Your task to perform on an android device: install app "DoorDash - Dasher" Image 0: 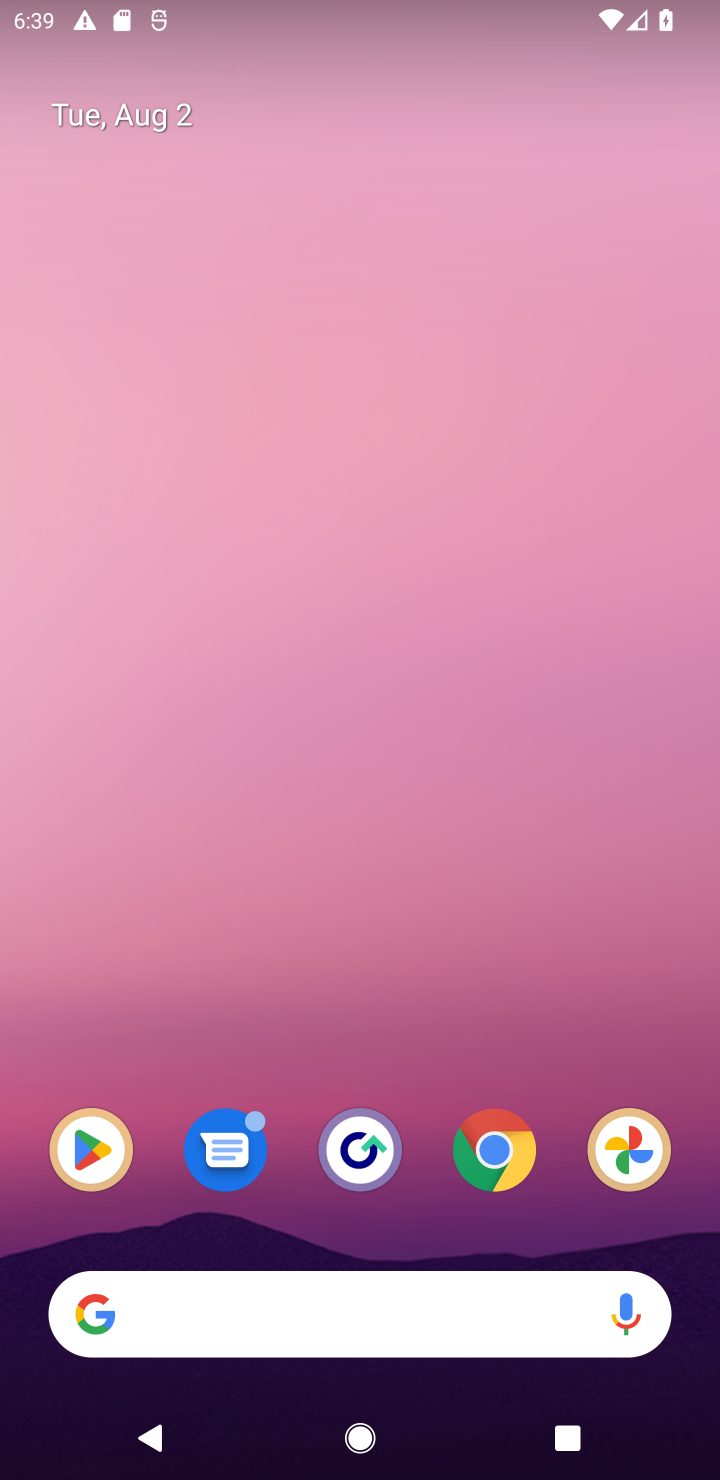
Step 0: drag from (307, 1280) to (373, 106)
Your task to perform on an android device: install app "DoorDash - Dasher" Image 1: 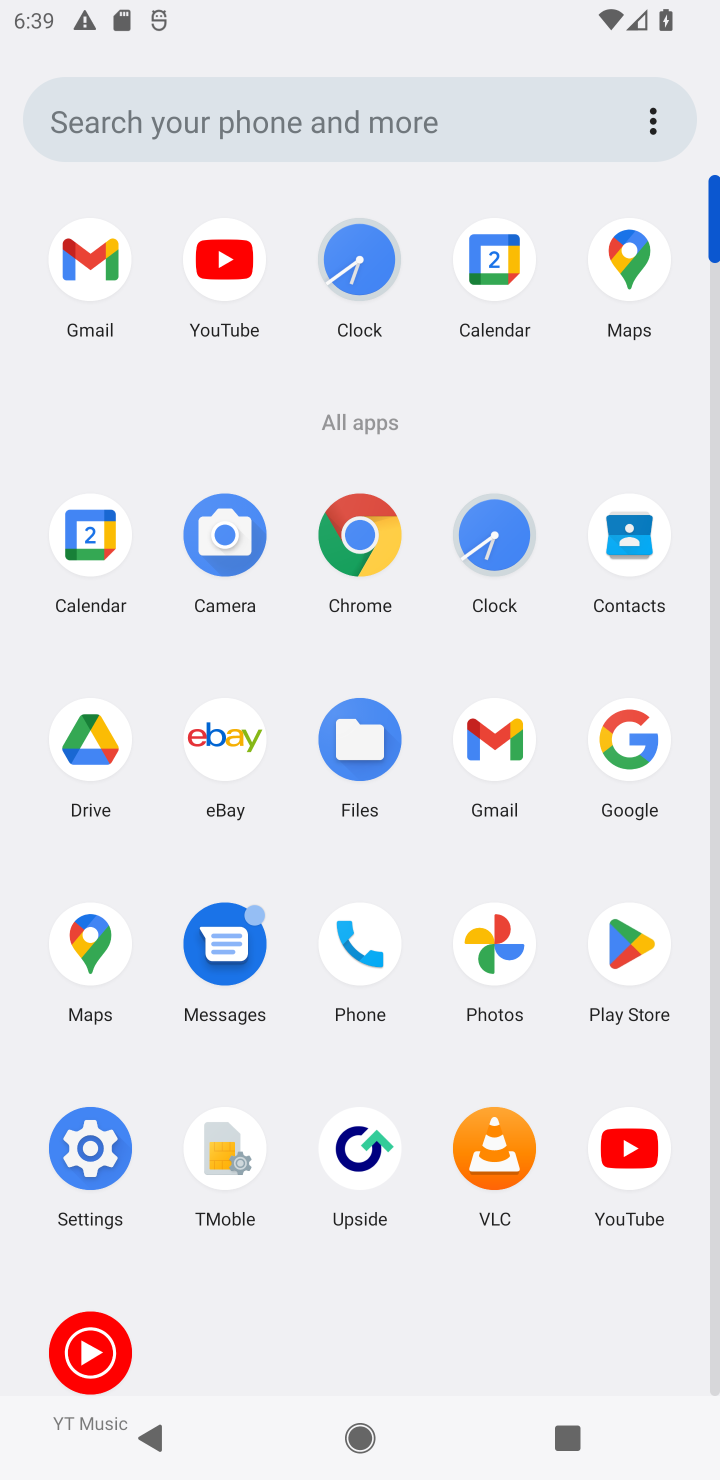
Step 1: click (617, 962)
Your task to perform on an android device: install app "DoorDash - Dasher" Image 2: 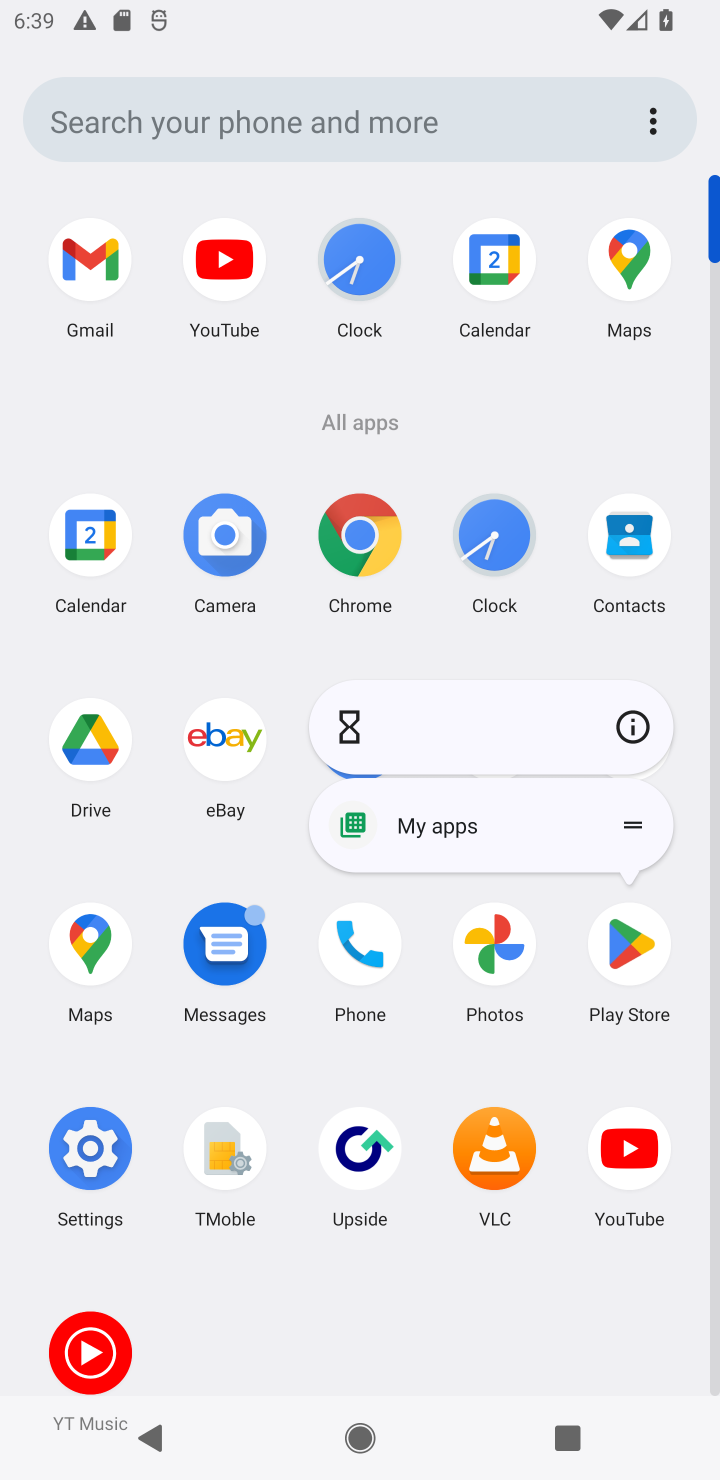
Step 2: click (594, 982)
Your task to perform on an android device: install app "DoorDash - Dasher" Image 3: 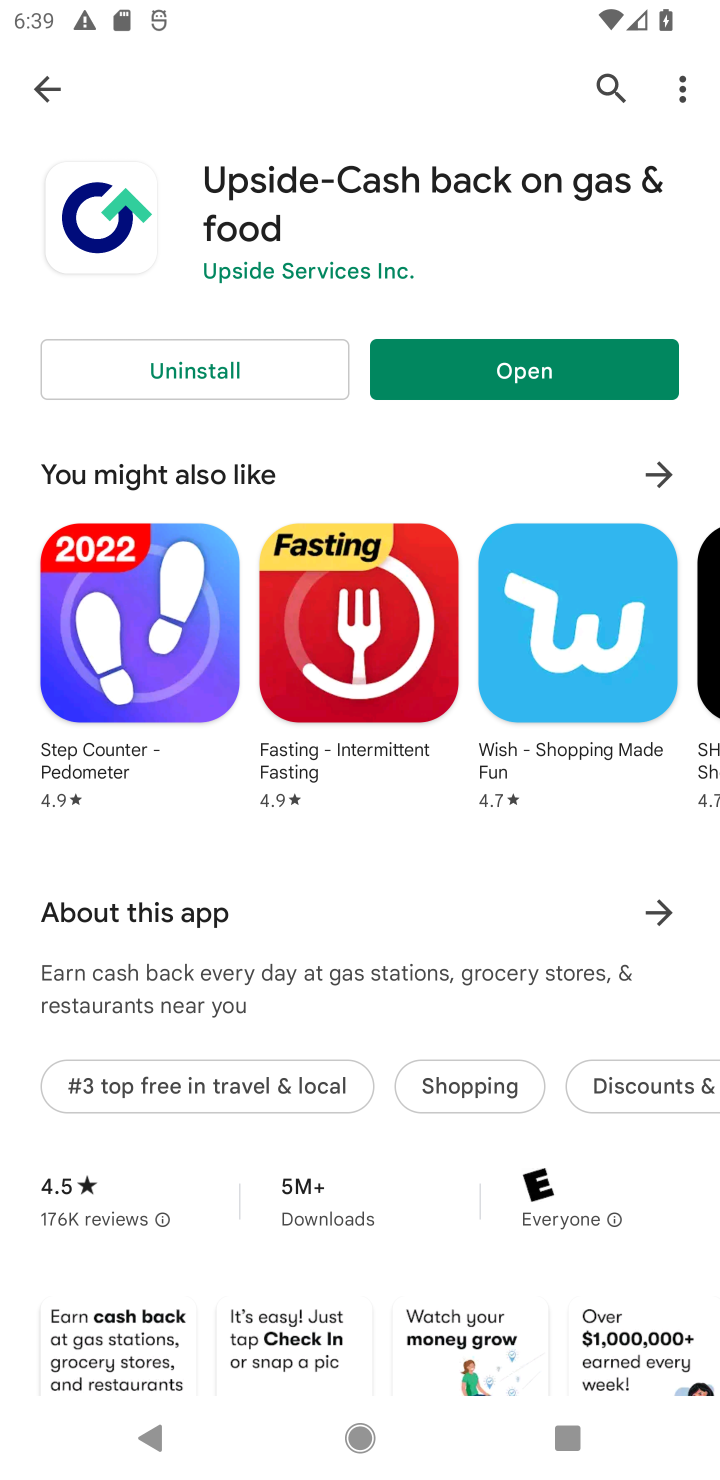
Step 3: click (17, 97)
Your task to perform on an android device: install app "DoorDash - Dasher" Image 4: 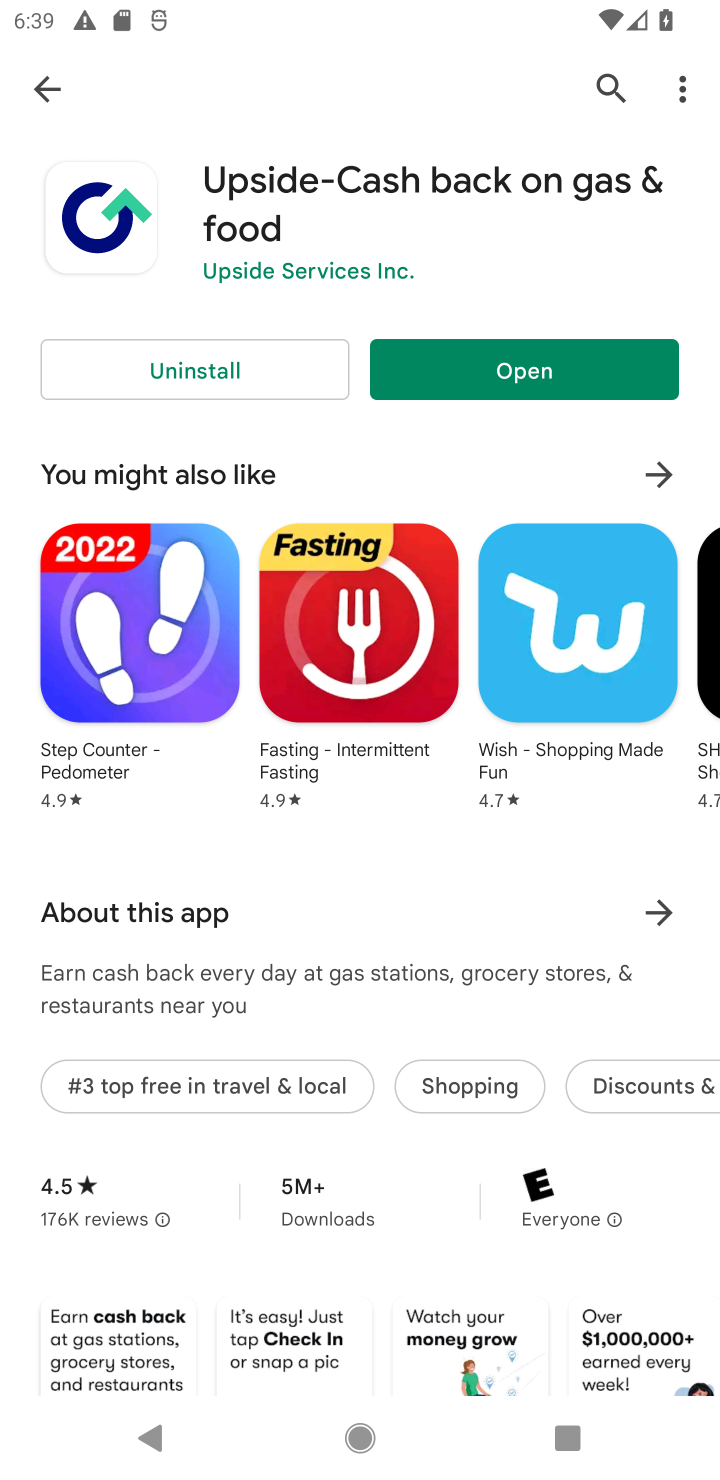
Step 4: click (27, 75)
Your task to perform on an android device: install app "DoorDash - Dasher" Image 5: 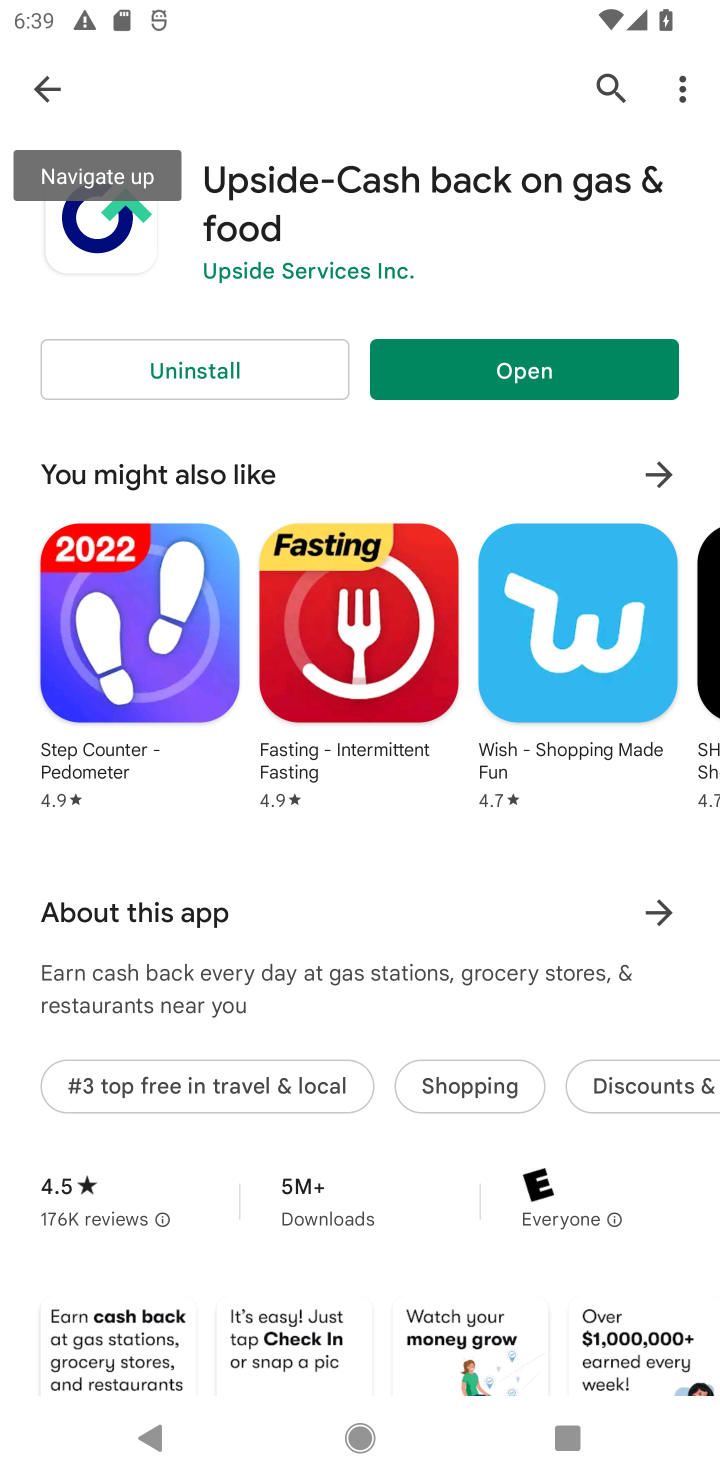
Step 5: click (29, 67)
Your task to perform on an android device: install app "DoorDash - Dasher" Image 6: 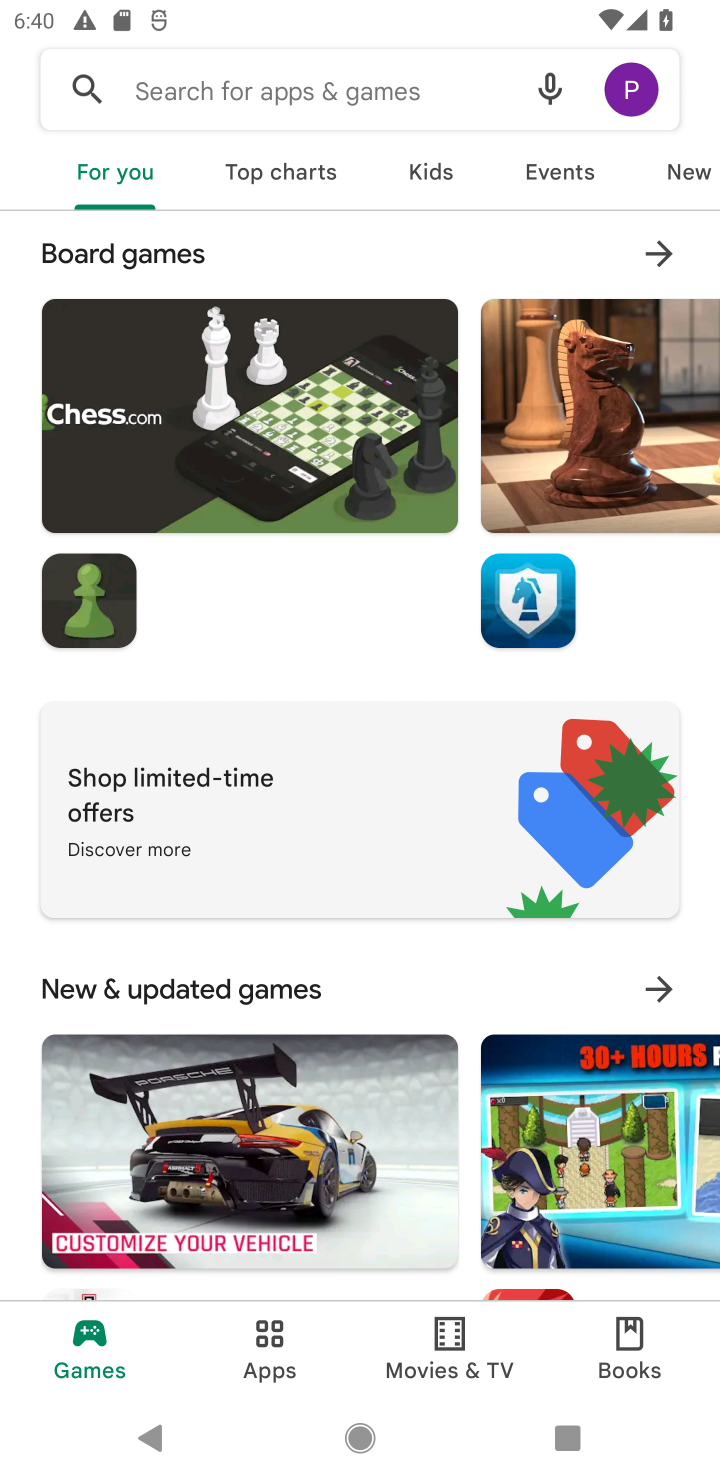
Step 6: click (329, 93)
Your task to perform on an android device: install app "DoorDash - Dasher" Image 7: 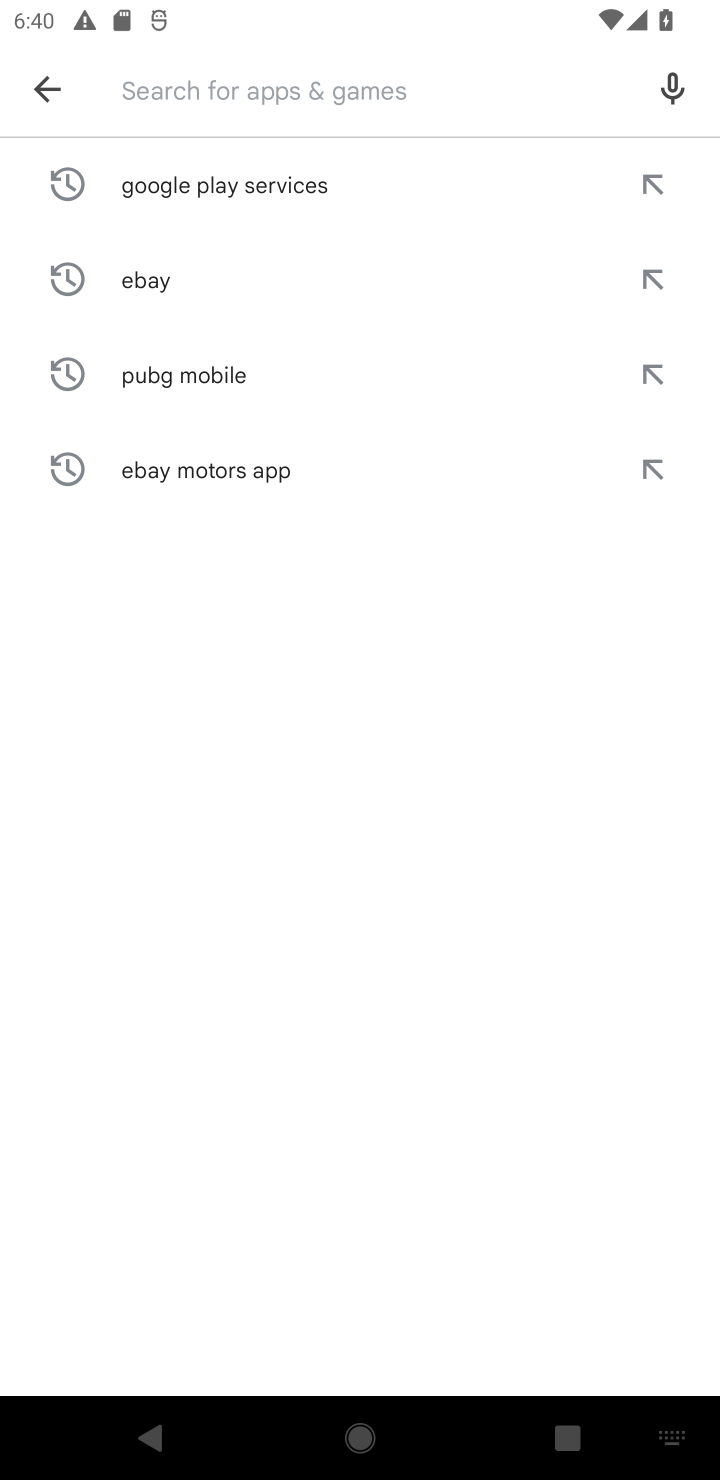
Step 7: type "DoorDash - Dashe"
Your task to perform on an android device: install app "DoorDash - Dasher" Image 8: 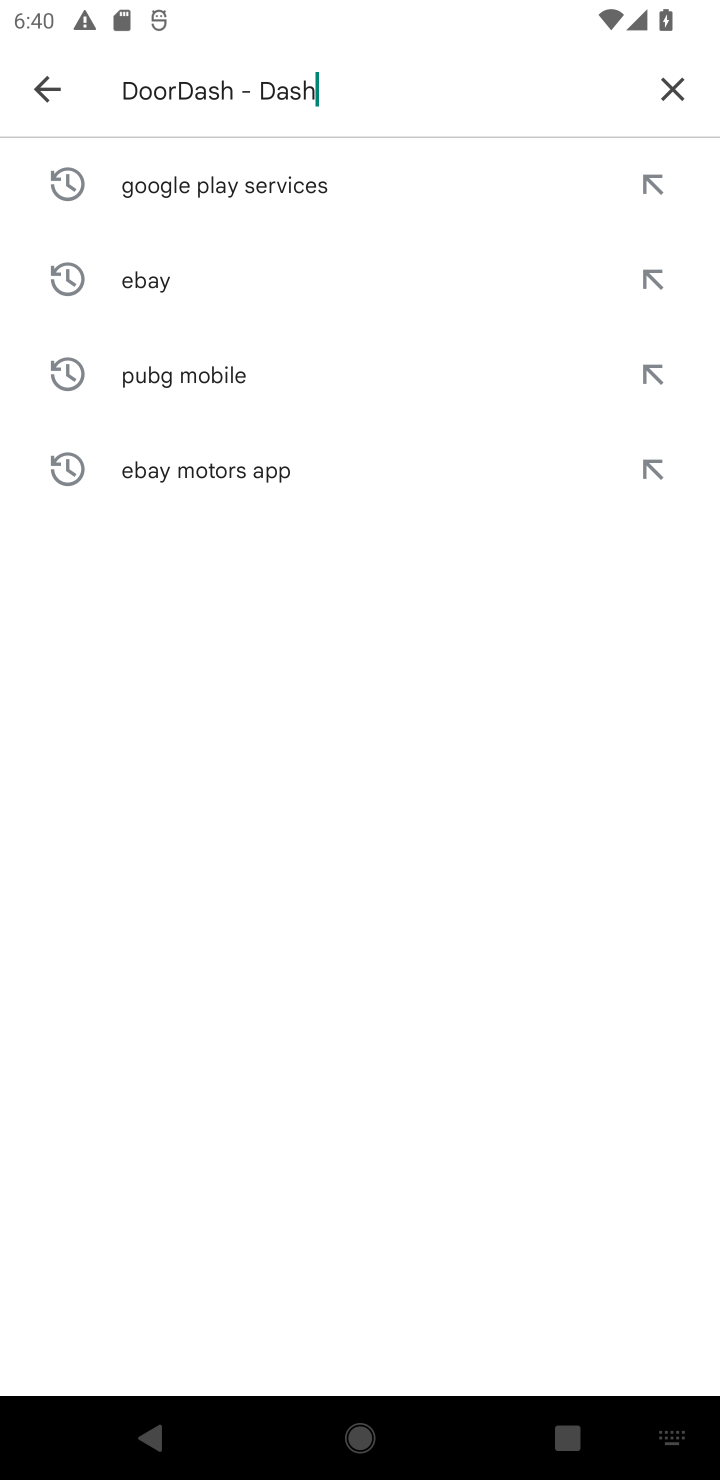
Step 8: type ""
Your task to perform on an android device: install app "DoorDash - Dasher" Image 9: 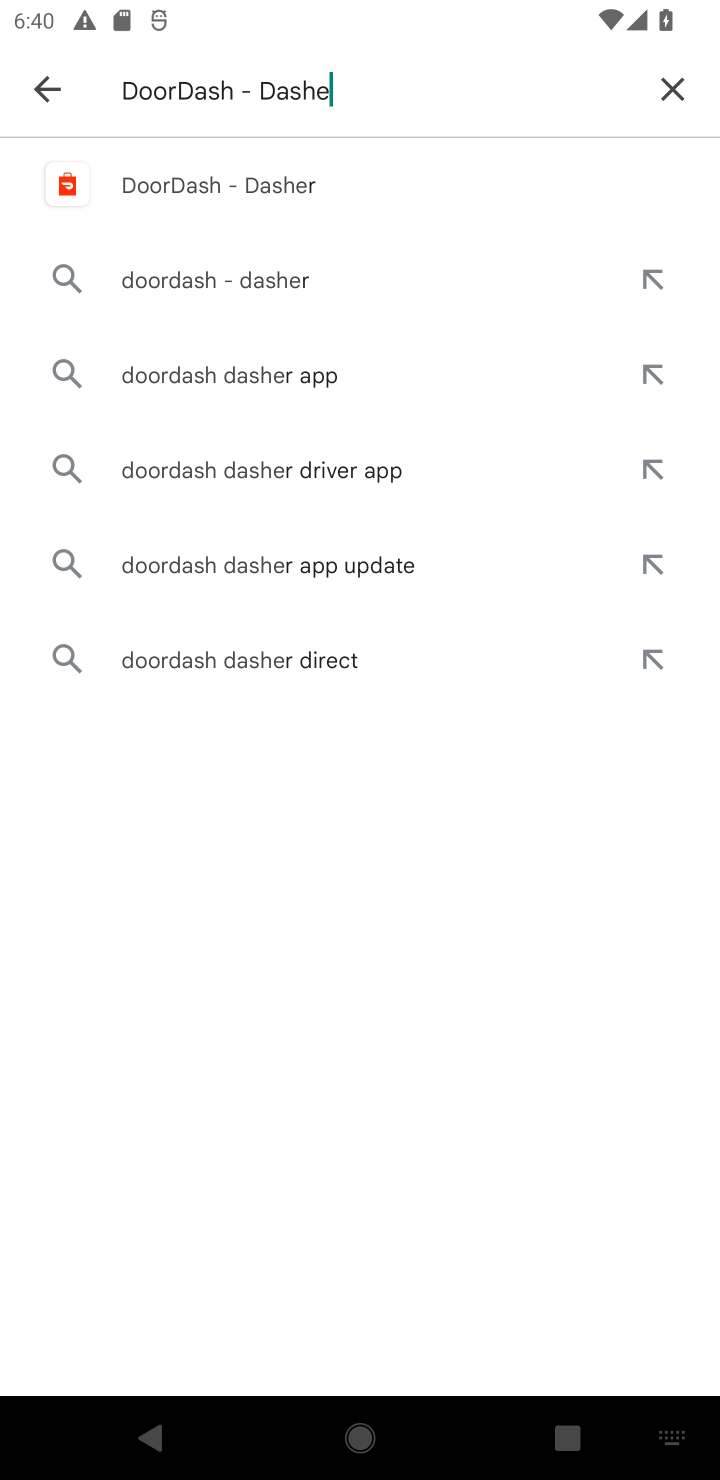
Step 9: click (254, 174)
Your task to perform on an android device: install app "DoorDash - Dasher" Image 10: 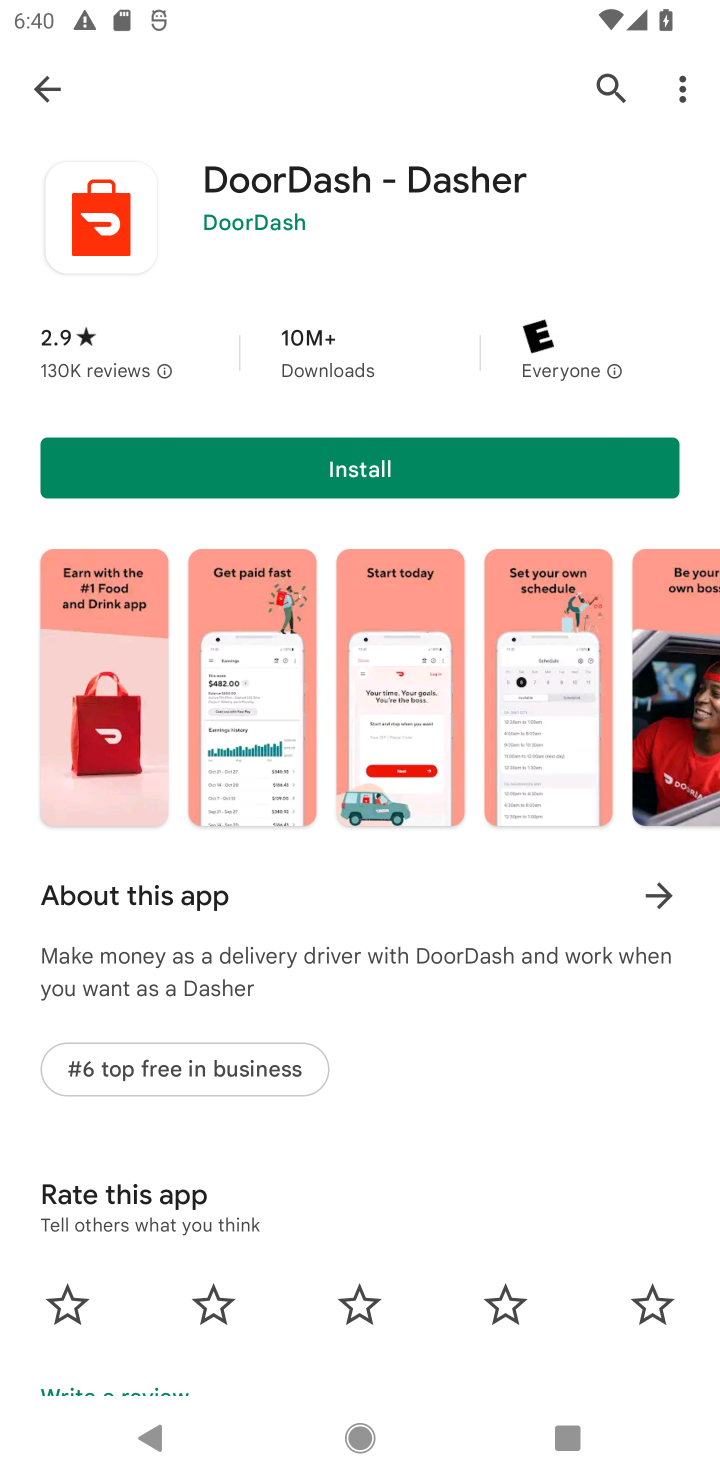
Step 10: click (300, 480)
Your task to perform on an android device: install app "DoorDash - Dasher" Image 11: 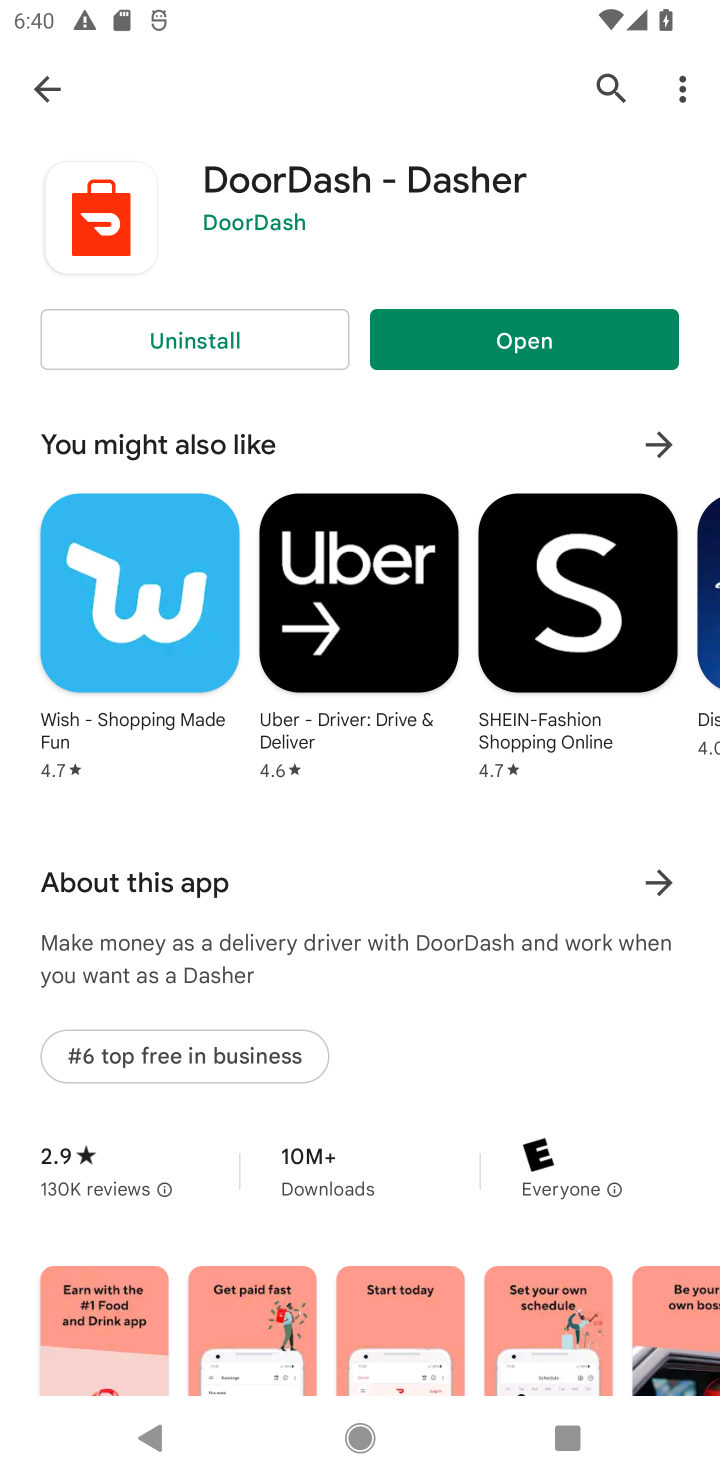
Step 11: task complete